Your task to perform on an android device: Open Reddit.com Image 0: 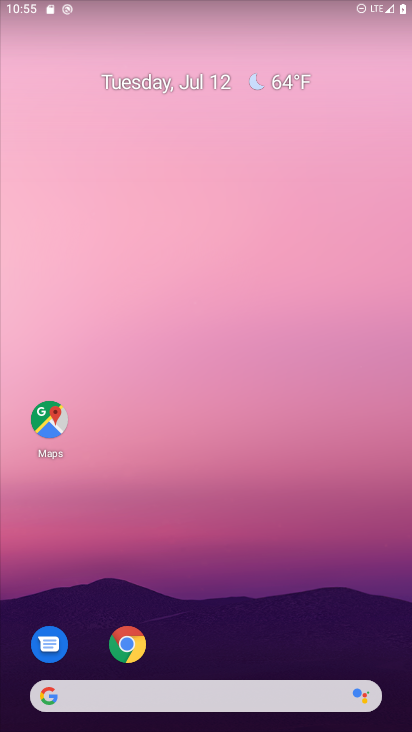
Step 0: press home button
Your task to perform on an android device: Open Reddit.com Image 1: 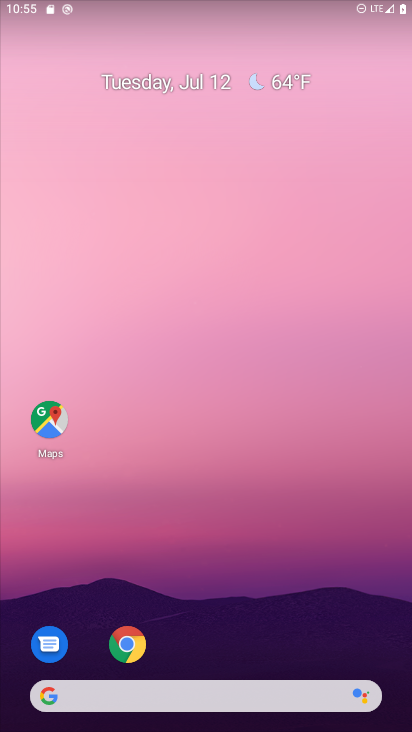
Step 1: drag from (270, 668) to (266, 171)
Your task to perform on an android device: Open Reddit.com Image 2: 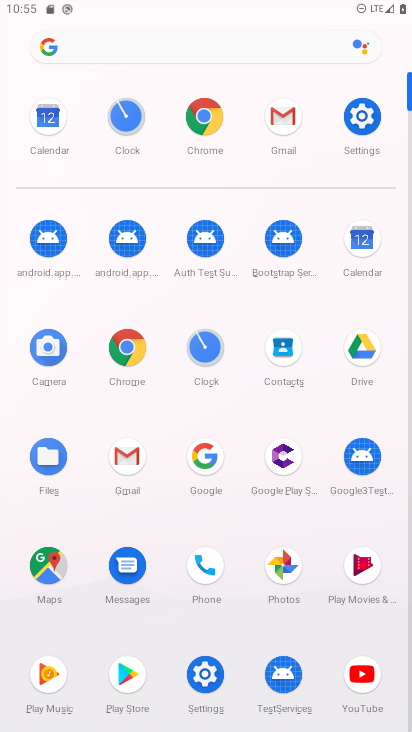
Step 2: click (196, 114)
Your task to perform on an android device: Open Reddit.com Image 3: 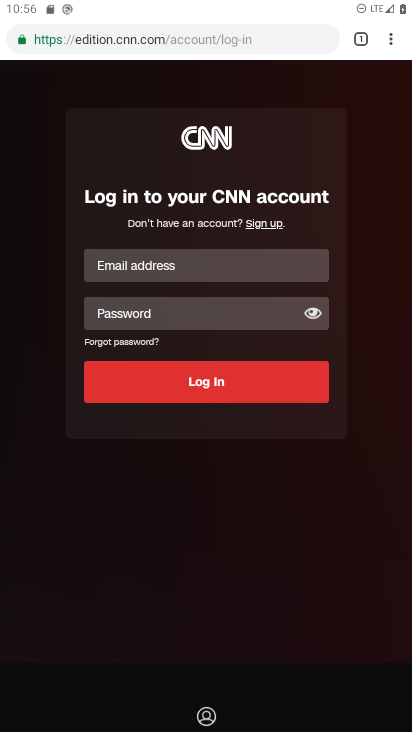
Step 3: click (158, 30)
Your task to perform on an android device: Open Reddit.com Image 4: 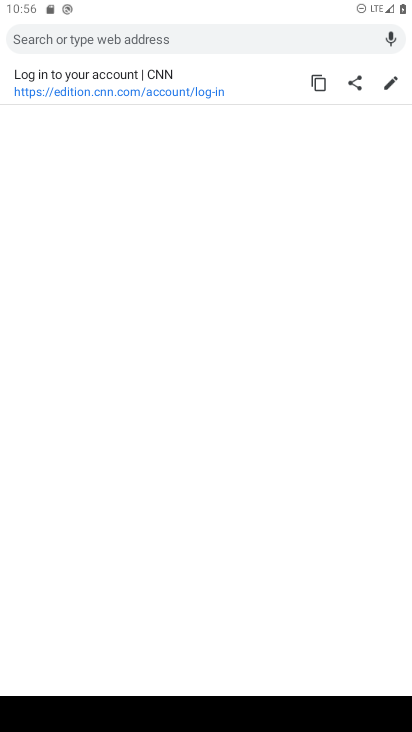
Step 4: type "reddit.com"
Your task to perform on an android device: Open Reddit.com Image 5: 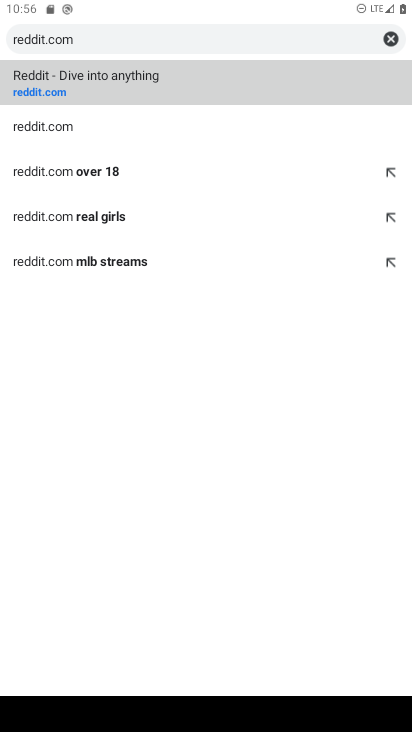
Step 5: click (130, 77)
Your task to perform on an android device: Open Reddit.com Image 6: 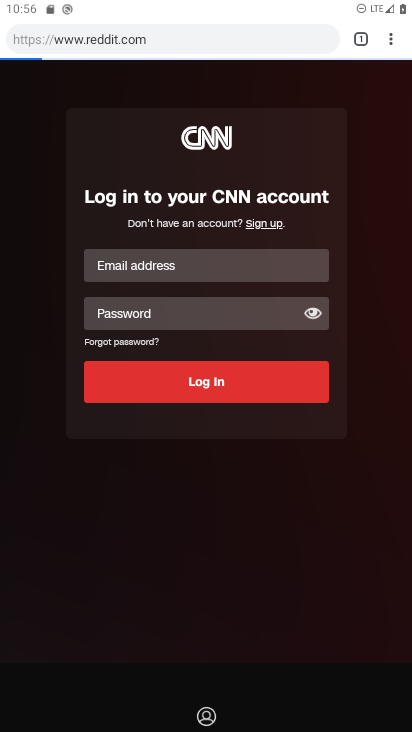
Step 6: task complete